Your task to perform on an android device: set an alarm Image 0: 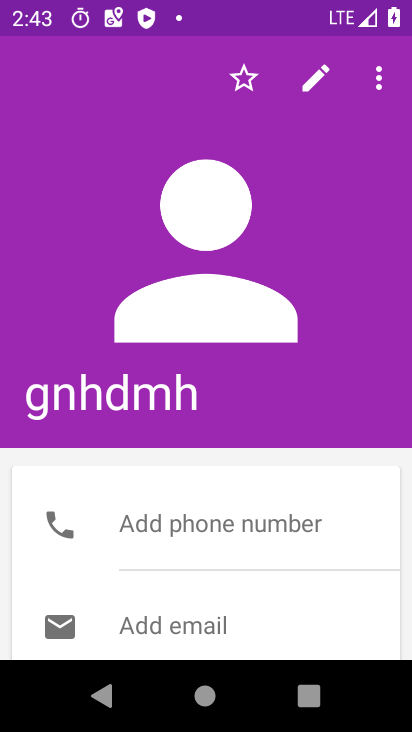
Step 0: press home button
Your task to perform on an android device: set an alarm Image 1: 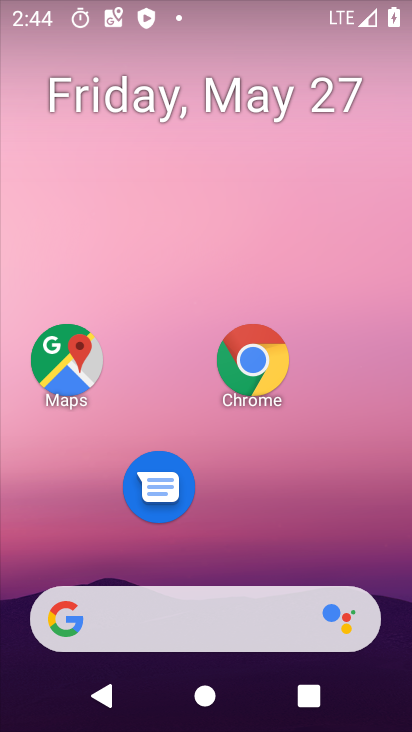
Step 1: drag from (269, 523) to (313, 77)
Your task to perform on an android device: set an alarm Image 2: 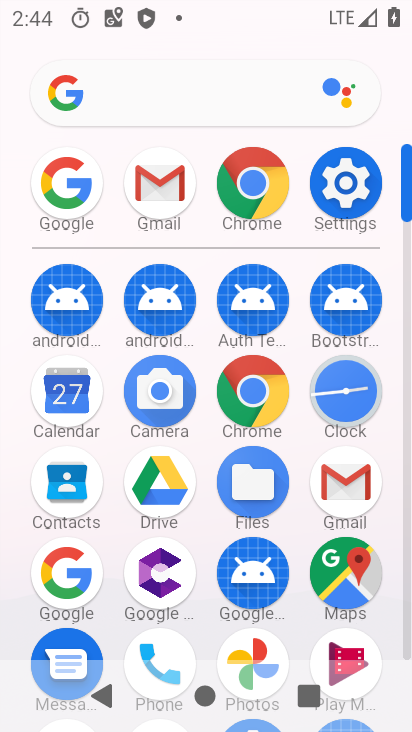
Step 2: click (344, 384)
Your task to perform on an android device: set an alarm Image 3: 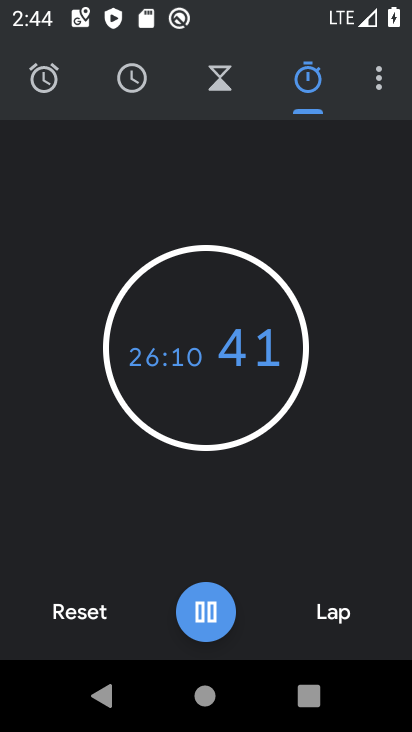
Step 3: click (48, 79)
Your task to perform on an android device: set an alarm Image 4: 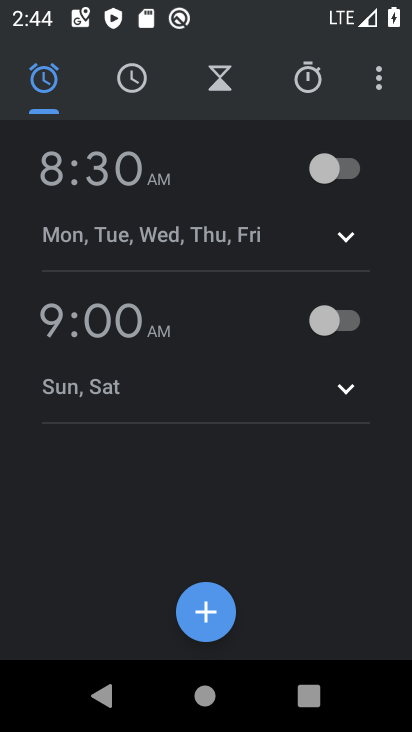
Step 4: click (337, 170)
Your task to perform on an android device: set an alarm Image 5: 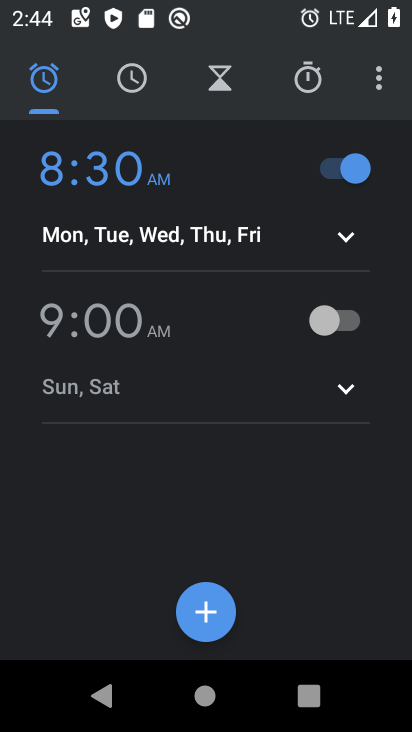
Step 5: task complete